Your task to perform on an android device: Open eBay Image 0: 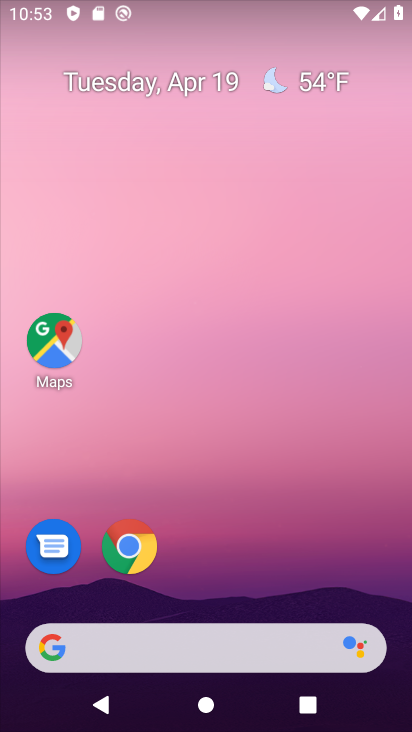
Step 0: click (206, 677)
Your task to perform on an android device: Open eBay Image 1: 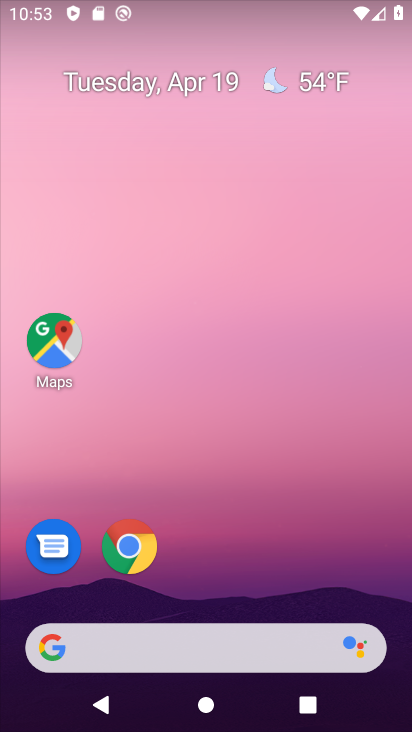
Step 1: click (222, 657)
Your task to perform on an android device: Open eBay Image 2: 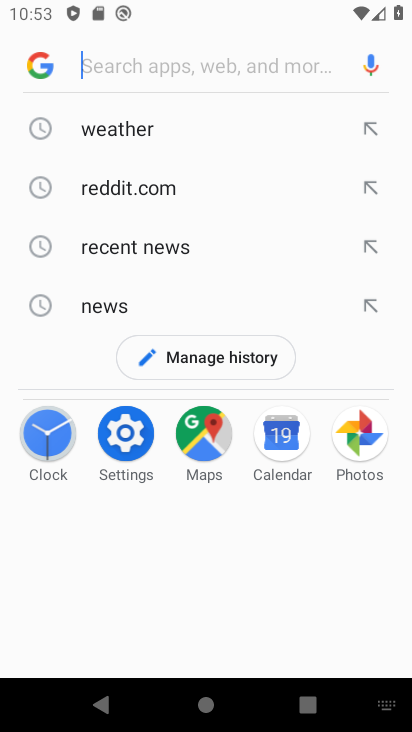
Step 2: type "ebay.com"
Your task to perform on an android device: Open eBay Image 3: 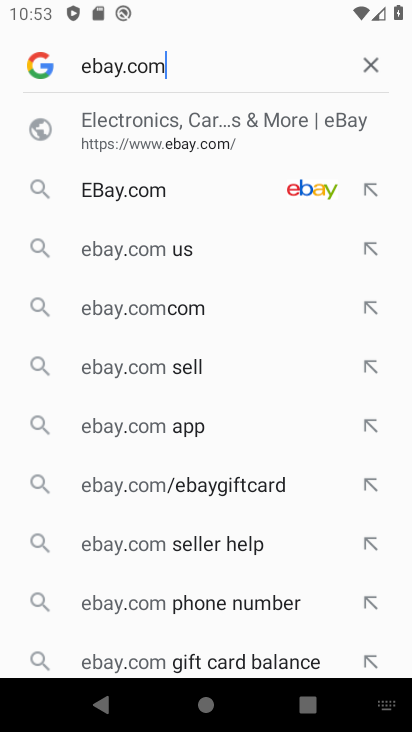
Step 3: click (215, 132)
Your task to perform on an android device: Open eBay Image 4: 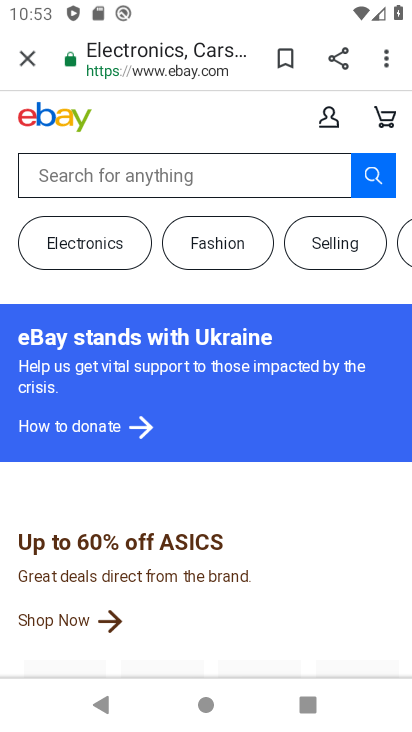
Step 4: task complete